Your task to perform on an android device: Open settings on Google Maps Image 0: 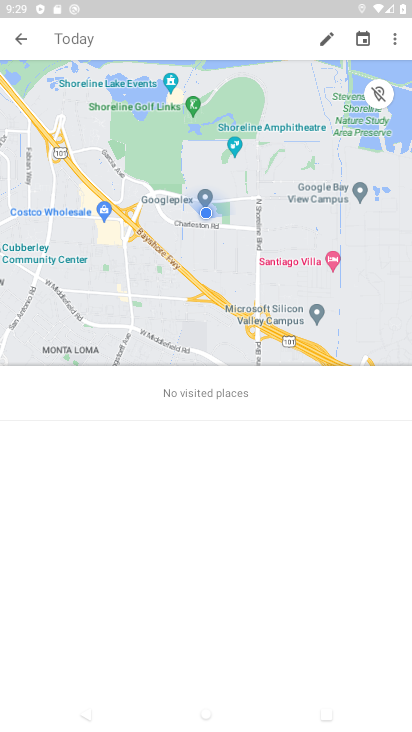
Step 0: click (267, 25)
Your task to perform on an android device: Open settings on Google Maps Image 1: 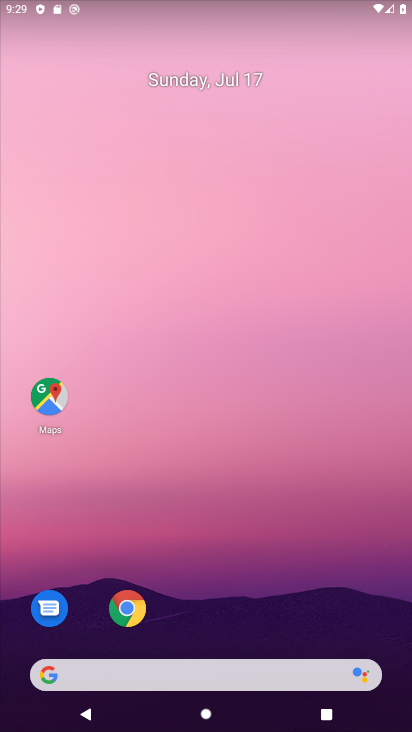
Step 1: drag from (264, 437) to (138, 46)
Your task to perform on an android device: Open settings on Google Maps Image 2: 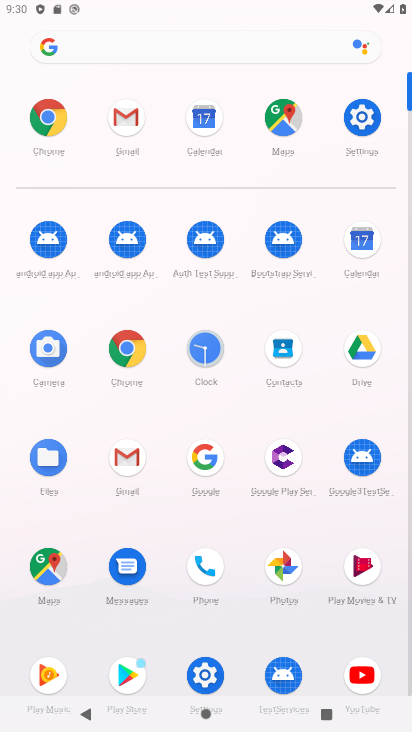
Step 2: click (43, 573)
Your task to perform on an android device: Open settings on Google Maps Image 3: 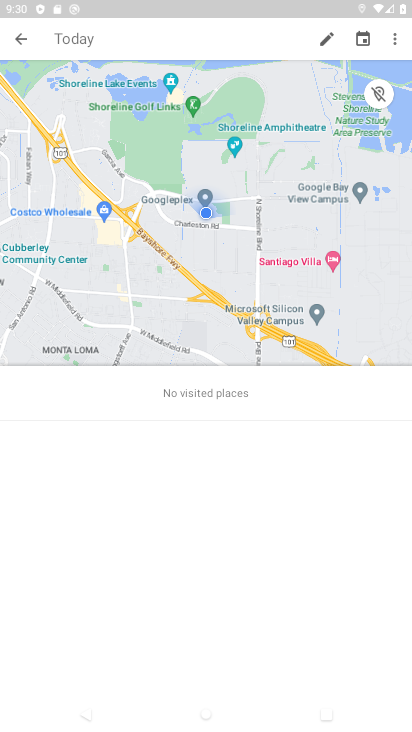
Step 3: task complete